Your task to perform on an android device: Show me popular games on the Play Store Image 0: 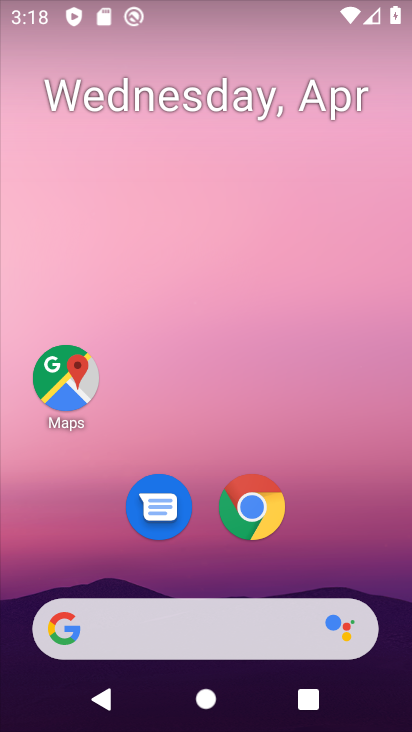
Step 0: drag from (285, 550) to (341, 14)
Your task to perform on an android device: Show me popular games on the Play Store Image 1: 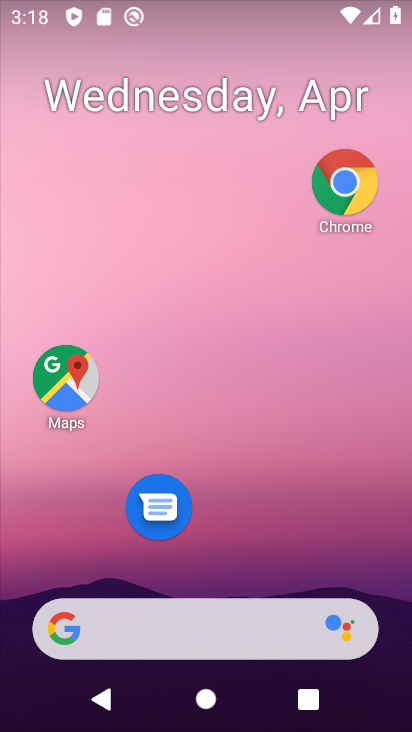
Step 1: drag from (218, 562) to (217, 84)
Your task to perform on an android device: Show me popular games on the Play Store Image 2: 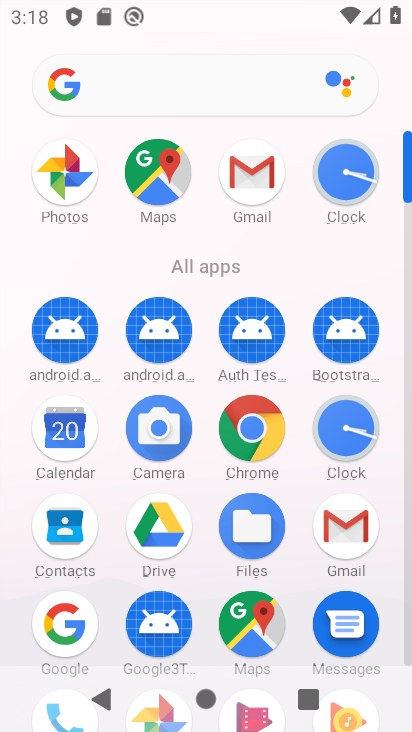
Step 2: drag from (208, 558) to (242, 228)
Your task to perform on an android device: Show me popular games on the Play Store Image 3: 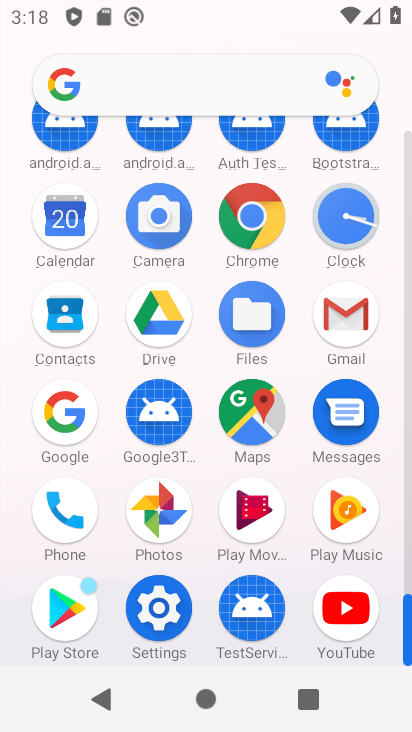
Step 3: click (61, 629)
Your task to perform on an android device: Show me popular games on the Play Store Image 4: 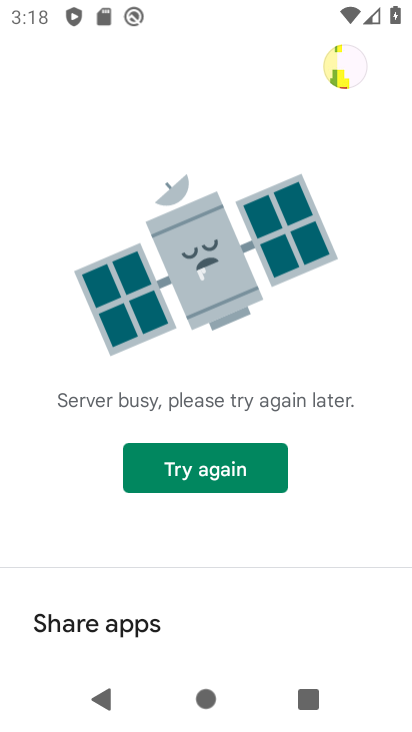
Step 4: click (236, 477)
Your task to perform on an android device: Show me popular games on the Play Store Image 5: 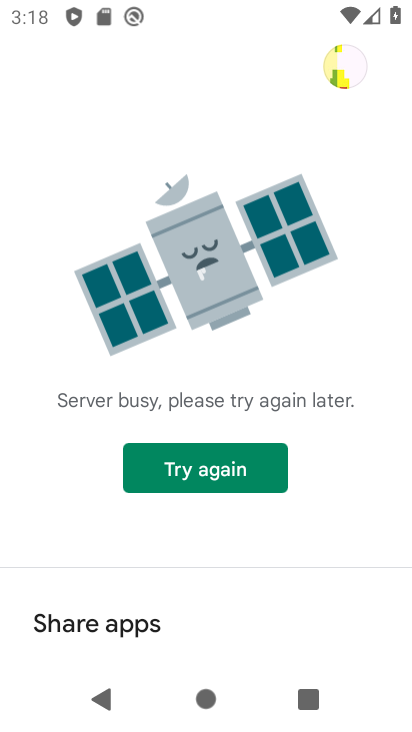
Step 5: click (236, 477)
Your task to perform on an android device: Show me popular games on the Play Store Image 6: 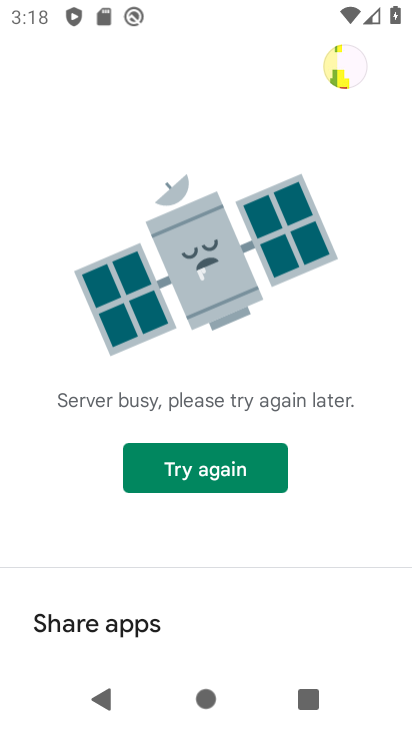
Step 6: task complete